Your task to perform on an android device: toggle pop-ups in chrome Image 0: 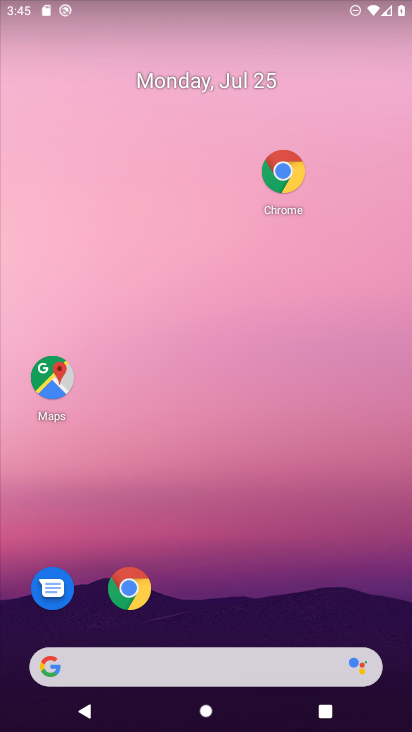
Step 0: drag from (334, 670) to (383, 157)
Your task to perform on an android device: toggle pop-ups in chrome Image 1: 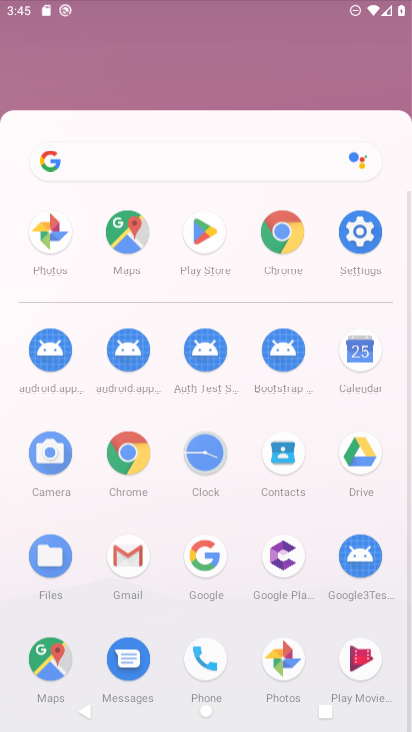
Step 1: drag from (345, 410) to (379, 199)
Your task to perform on an android device: toggle pop-ups in chrome Image 2: 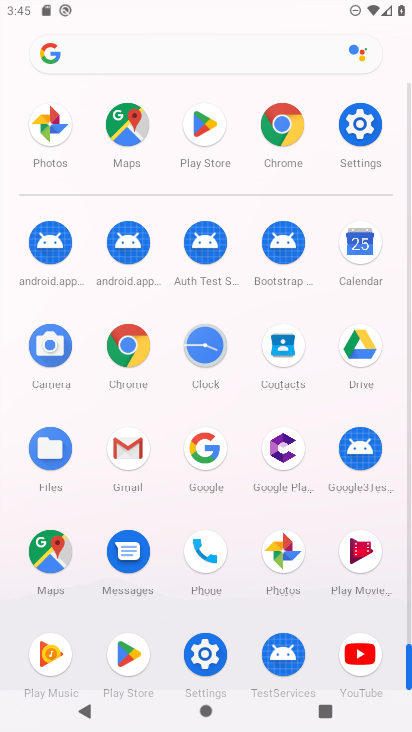
Step 2: drag from (351, 383) to (377, 60)
Your task to perform on an android device: toggle pop-ups in chrome Image 3: 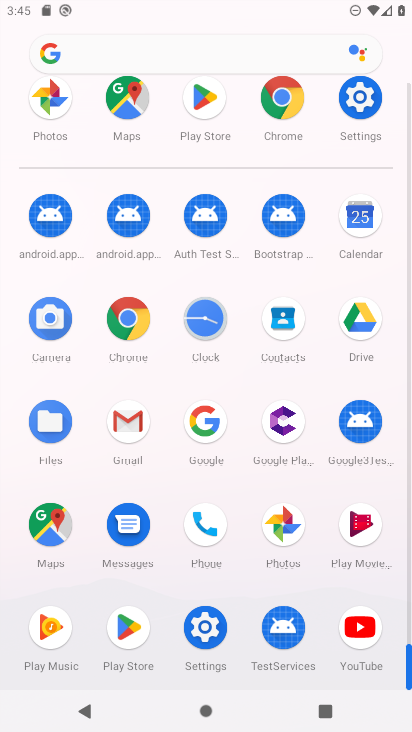
Step 3: click (294, 82)
Your task to perform on an android device: toggle pop-ups in chrome Image 4: 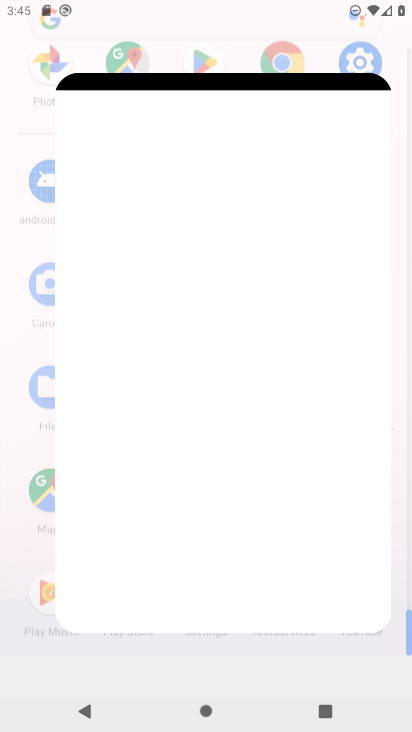
Step 4: click (291, 84)
Your task to perform on an android device: toggle pop-ups in chrome Image 5: 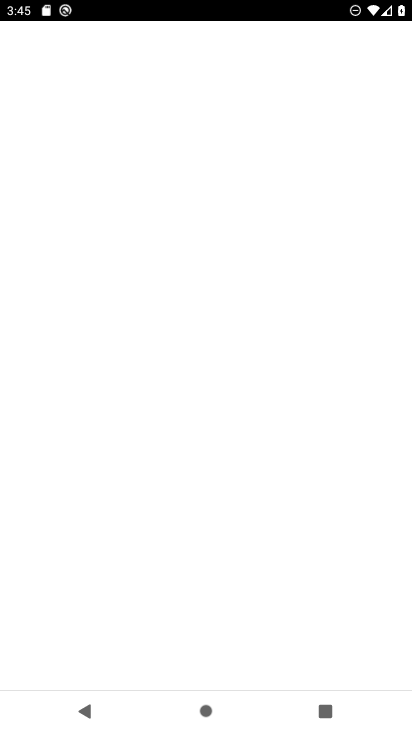
Step 5: click (293, 89)
Your task to perform on an android device: toggle pop-ups in chrome Image 6: 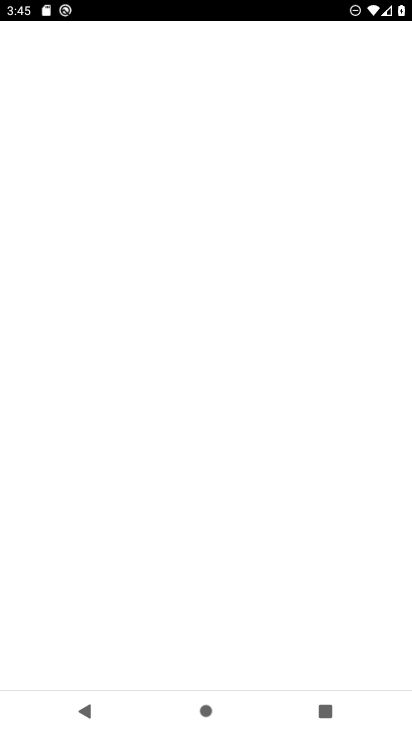
Step 6: click (294, 90)
Your task to perform on an android device: toggle pop-ups in chrome Image 7: 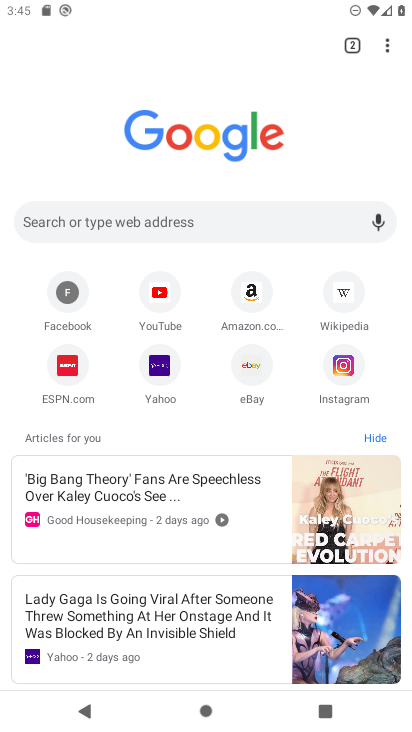
Step 7: drag from (382, 44) to (234, 376)
Your task to perform on an android device: toggle pop-ups in chrome Image 8: 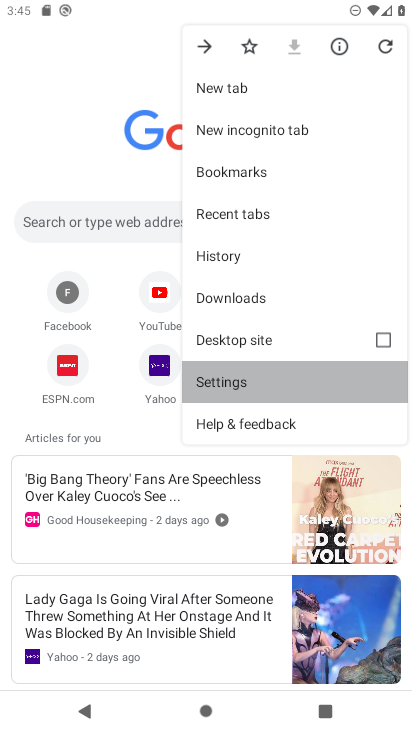
Step 8: click (232, 376)
Your task to perform on an android device: toggle pop-ups in chrome Image 9: 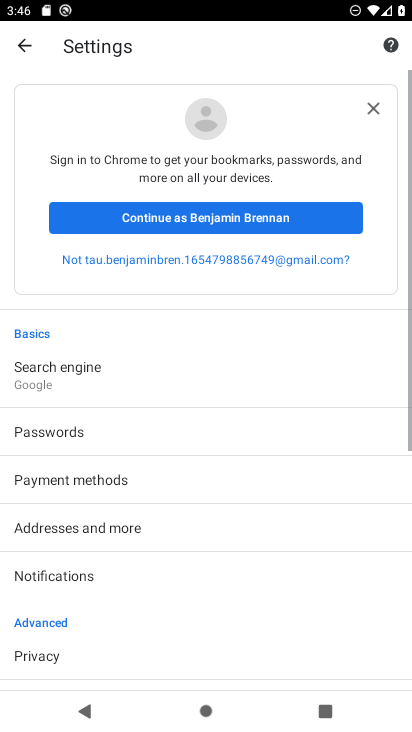
Step 9: drag from (141, 489) to (115, 170)
Your task to perform on an android device: toggle pop-ups in chrome Image 10: 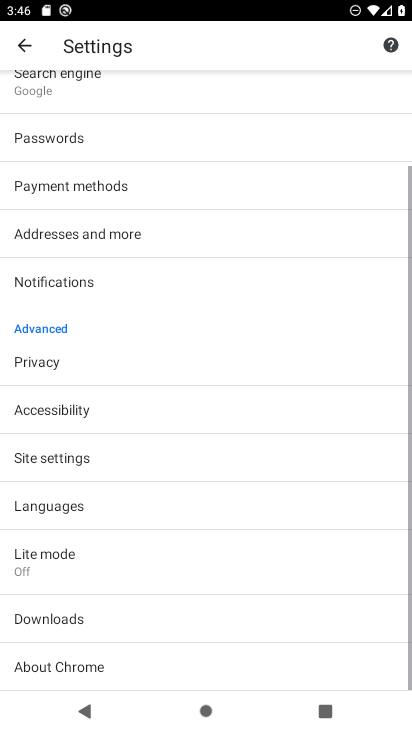
Step 10: drag from (120, 592) to (140, 211)
Your task to perform on an android device: toggle pop-ups in chrome Image 11: 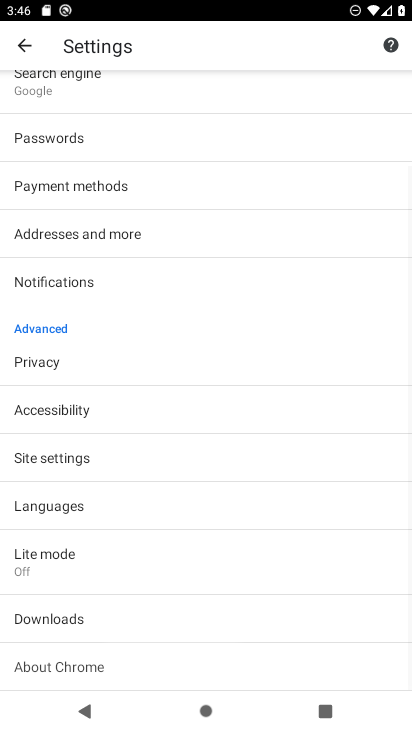
Step 11: drag from (121, 528) to (121, 292)
Your task to perform on an android device: toggle pop-ups in chrome Image 12: 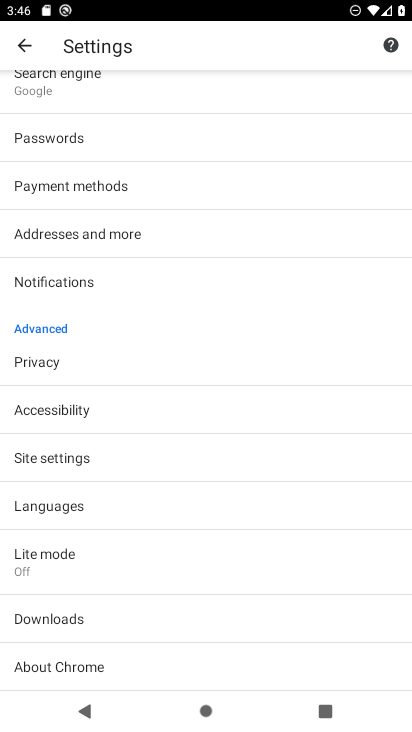
Step 12: click (35, 458)
Your task to perform on an android device: toggle pop-ups in chrome Image 13: 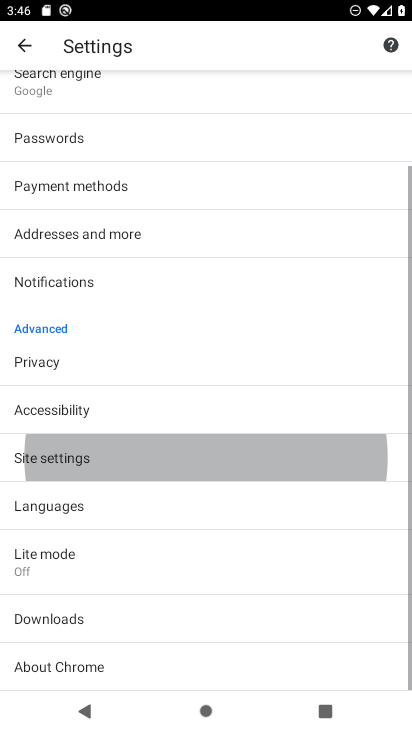
Step 13: click (42, 451)
Your task to perform on an android device: toggle pop-ups in chrome Image 14: 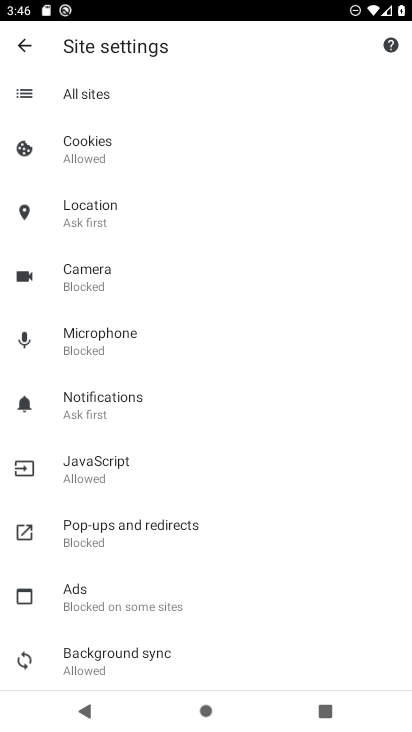
Step 14: click (98, 526)
Your task to perform on an android device: toggle pop-ups in chrome Image 15: 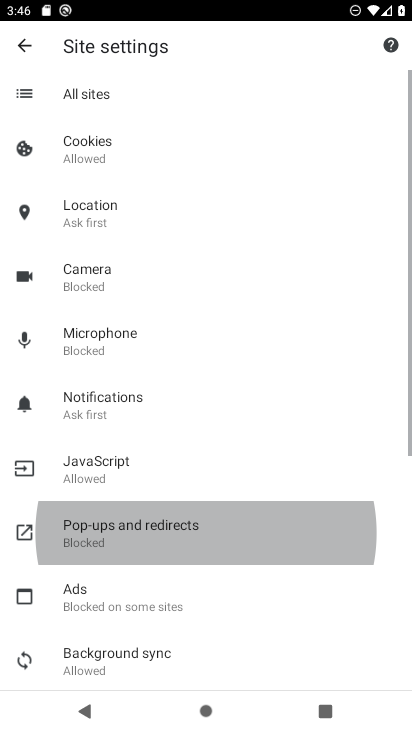
Step 15: click (98, 523)
Your task to perform on an android device: toggle pop-ups in chrome Image 16: 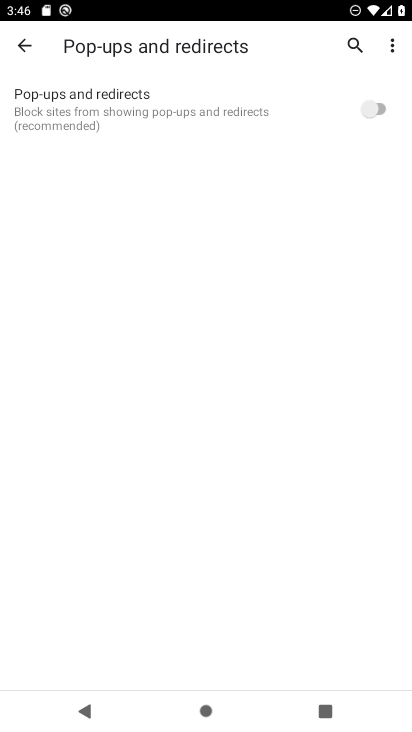
Step 16: click (96, 537)
Your task to perform on an android device: toggle pop-ups in chrome Image 17: 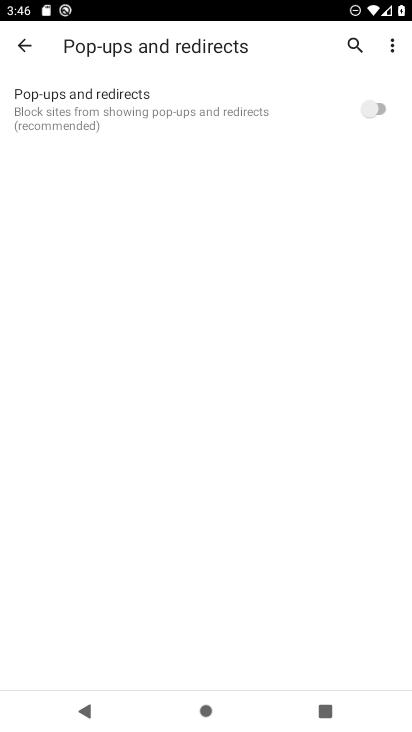
Step 17: click (377, 115)
Your task to perform on an android device: toggle pop-ups in chrome Image 18: 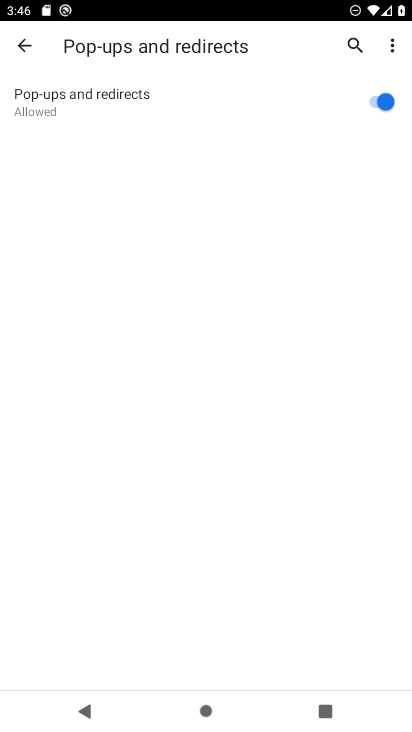
Step 18: task complete